Your task to perform on an android device: check data usage Image 0: 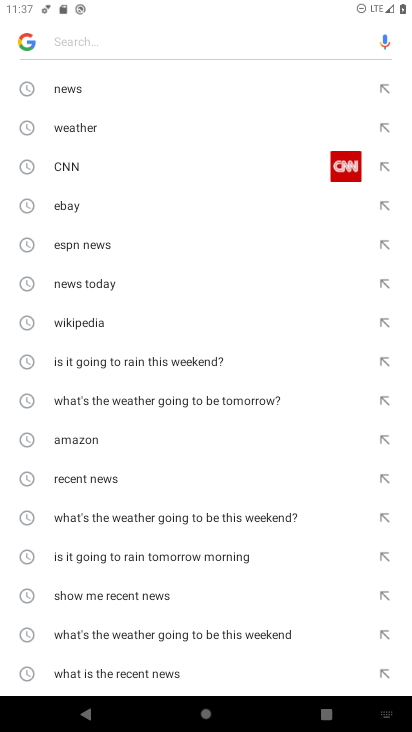
Step 0: drag from (172, 5) to (187, 568)
Your task to perform on an android device: check data usage Image 1: 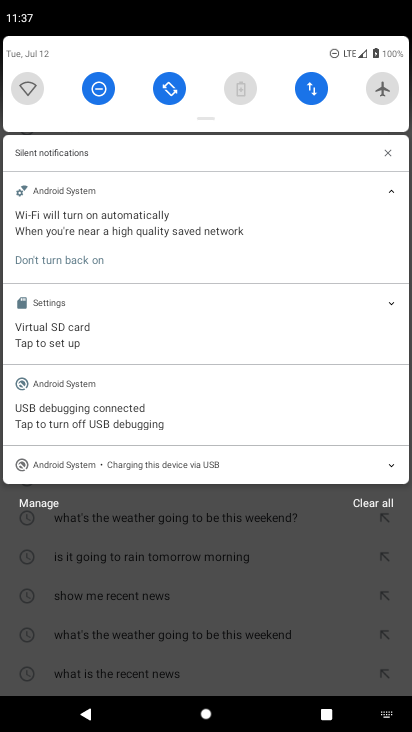
Step 1: click (318, 94)
Your task to perform on an android device: check data usage Image 2: 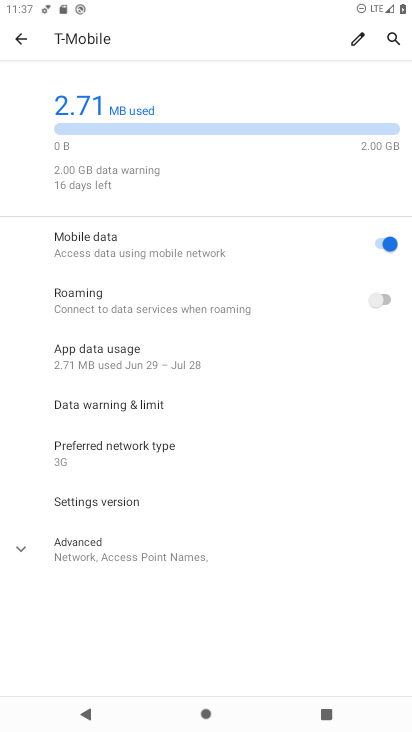
Step 2: task complete